Your task to perform on an android device: toggle sleep mode Image 0: 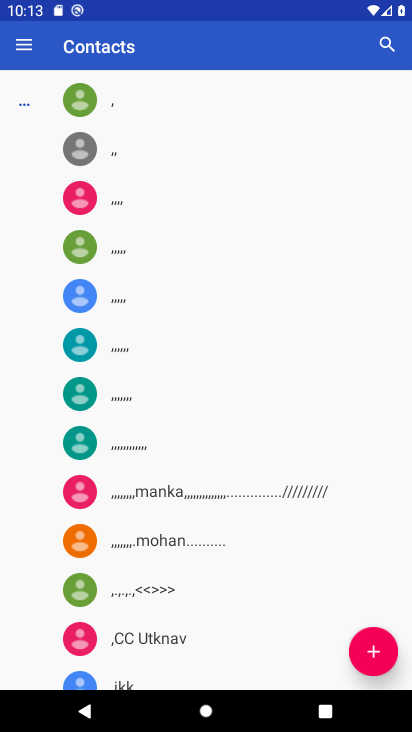
Step 0: press home button
Your task to perform on an android device: toggle sleep mode Image 1: 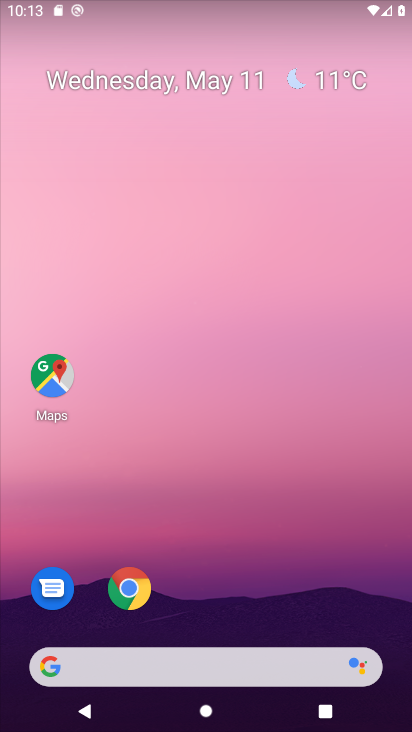
Step 1: drag from (276, 546) to (290, 83)
Your task to perform on an android device: toggle sleep mode Image 2: 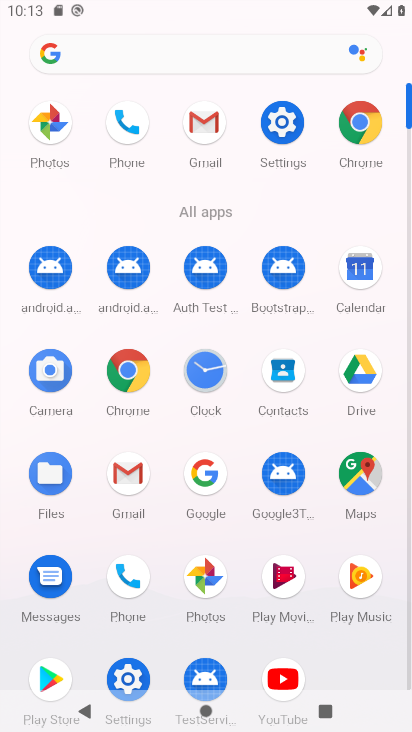
Step 2: click (274, 133)
Your task to perform on an android device: toggle sleep mode Image 3: 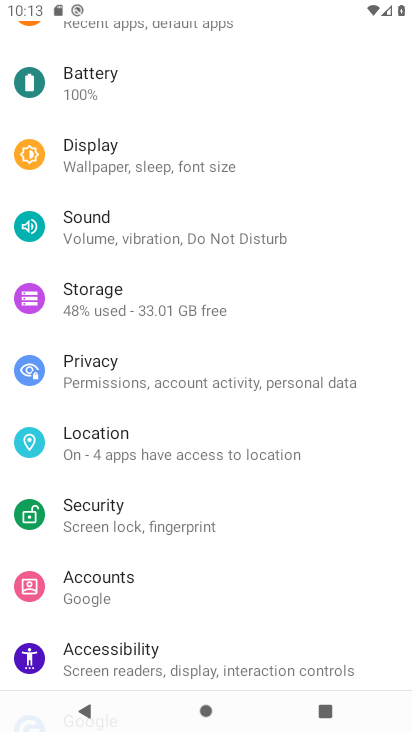
Step 3: click (157, 160)
Your task to perform on an android device: toggle sleep mode Image 4: 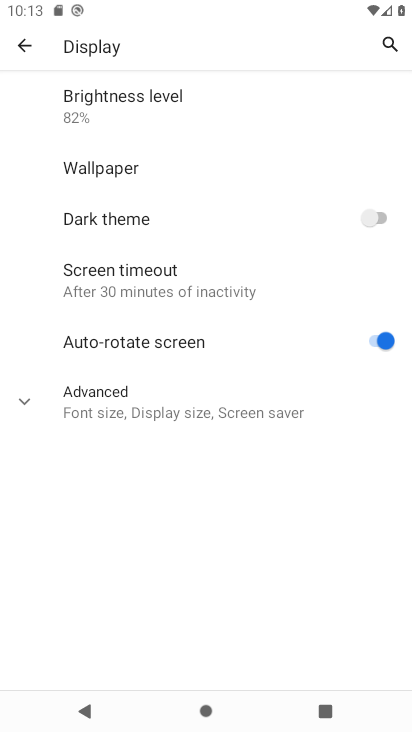
Step 4: click (30, 403)
Your task to perform on an android device: toggle sleep mode Image 5: 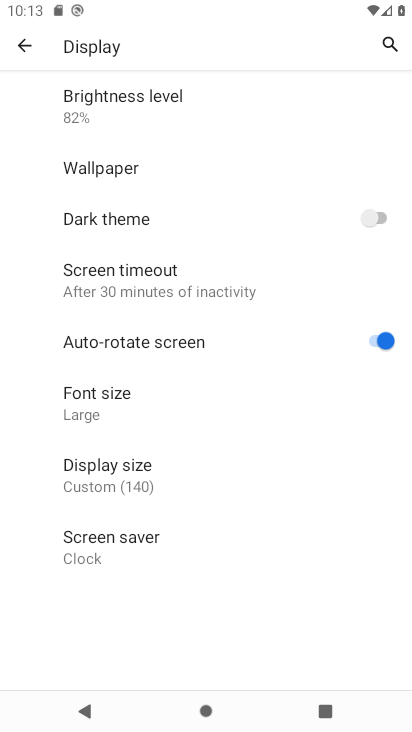
Step 5: task complete